Your task to perform on an android device: Go to accessibility settings Image 0: 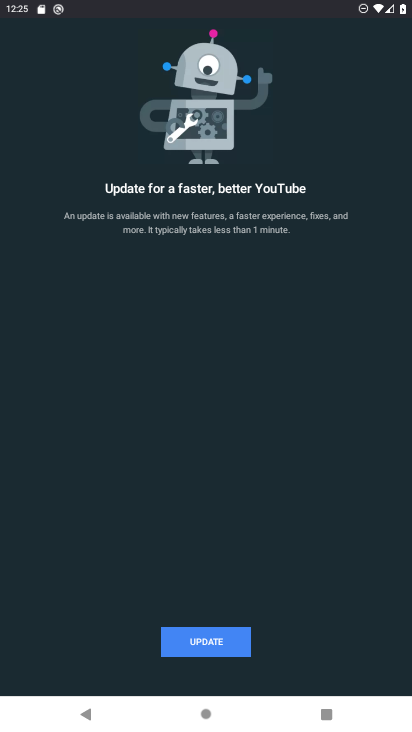
Step 0: press home button
Your task to perform on an android device: Go to accessibility settings Image 1: 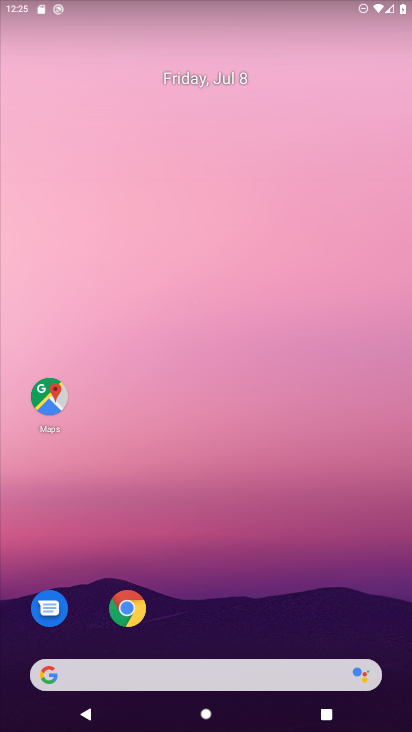
Step 1: drag from (250, 727) to (250, 62)
Your task to perform on an android device: Go to accessibility settings Image 2: 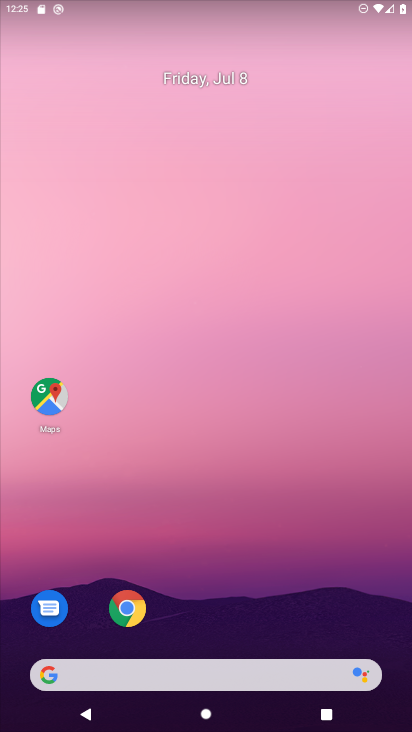
Step 2: drag from (252, 708) to (244, 644)
Your task to perform on an android device: Go to accessibility settings Image 3: 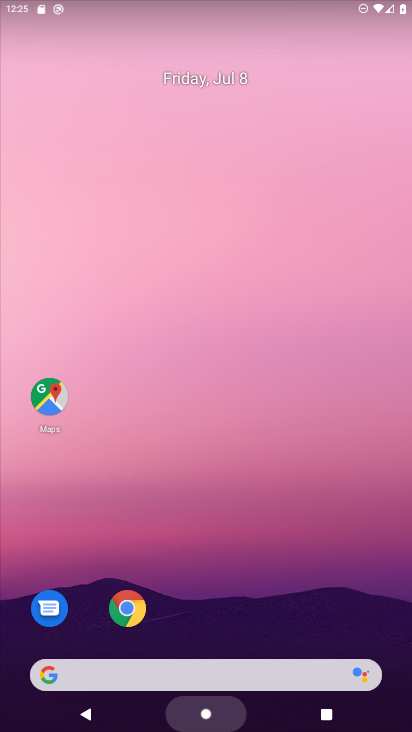
Step 3: drag from (233, 123) to (234, 72)
Your task to perform on an android device: Go to accessibility settings Image 4: 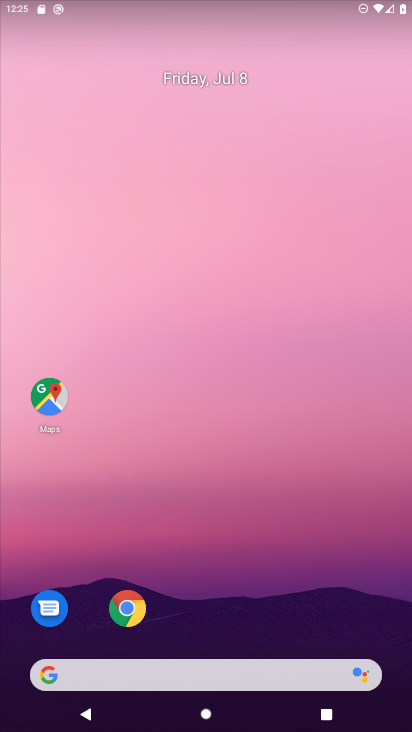
Step 4: drag from (255, 723) to (256, 118)
Your task to perform on an android device: Go to accessibility settings Image 5: 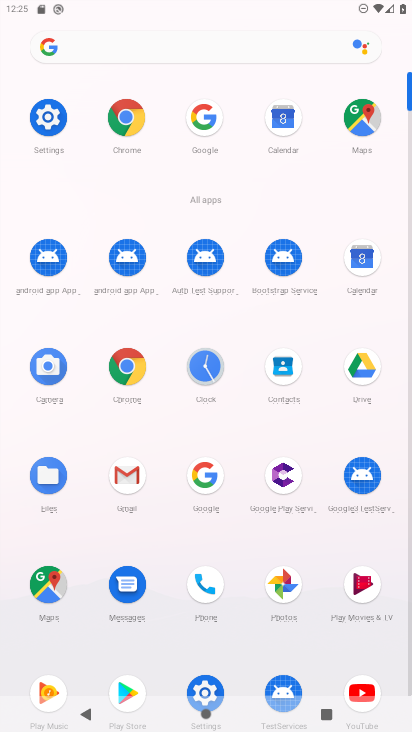
Step 5: click (48, 116)
Your task to perform on an android device: Go to accessibility settings Image 6: 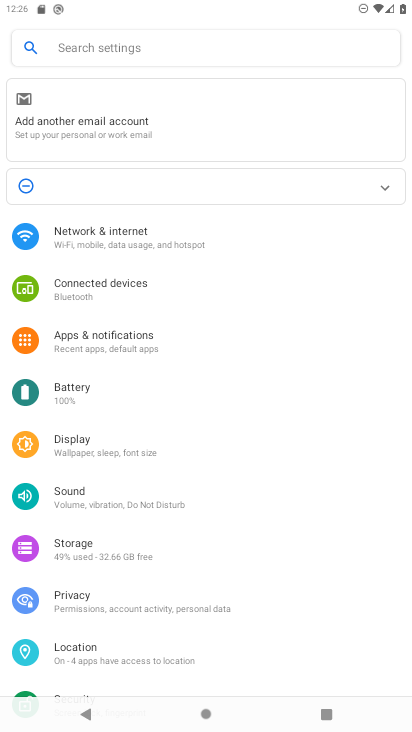
Step 6: drag from (220, 674) to (220, 272)
Your task to perform on an android device: Go to accessibility settings Image 7: 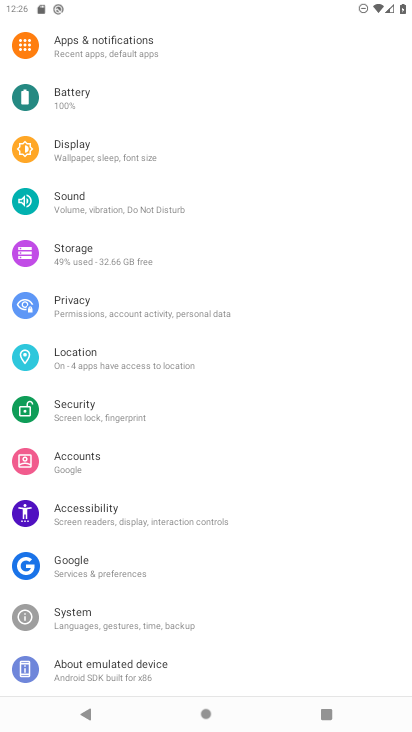
Step 7: click (74, 512)
Your task to perform on an android device: Go to accessibility settings Image 8: 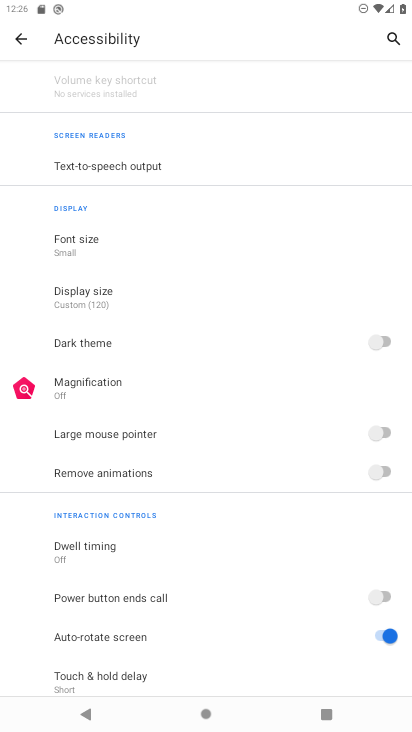
Step 8: task complete